Your task to perform on an android device: When is my next appointment? Image 0: 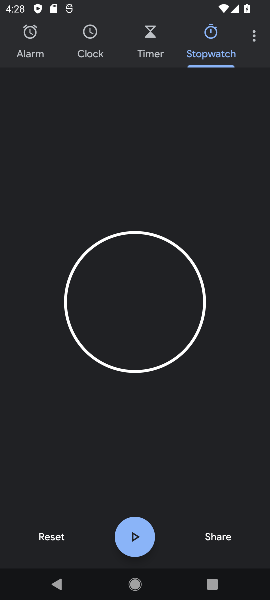
Step 0: press back button
Your task to perform on an android device: When is my next appointment? Image 1: 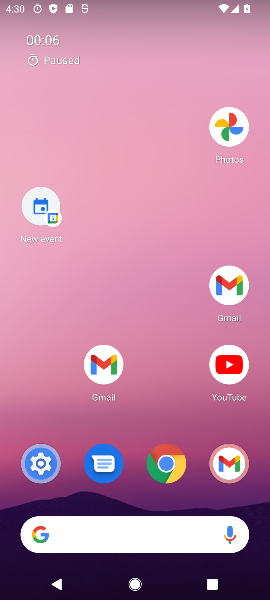
Step 1: drag from (128, 467) to (92, 111)
Your task to perform on an android device: When is my next appointment? Image 2: 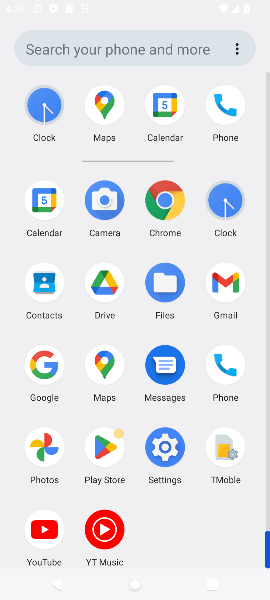
Step 2: drag from (156, 508) to (155, 130)
Your task to perform on an android device: When is my next appointment? Image 3: 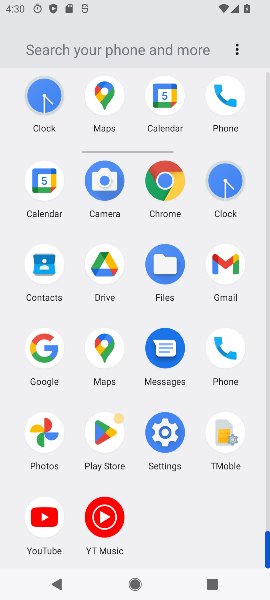
Step 3: drag from (145, 333) to (154, 134)
Your task to perform on an android device: When is my next appointment? Image 4: 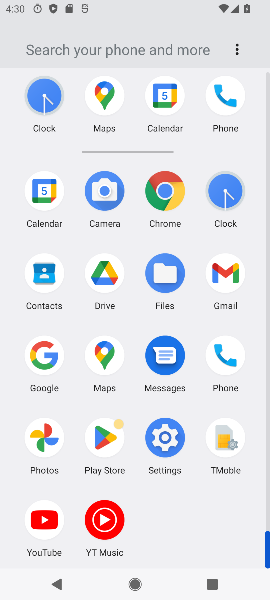
Step 4: click (159, 100)
Your task to perform on an android device: When is my next appointment? Image 5: 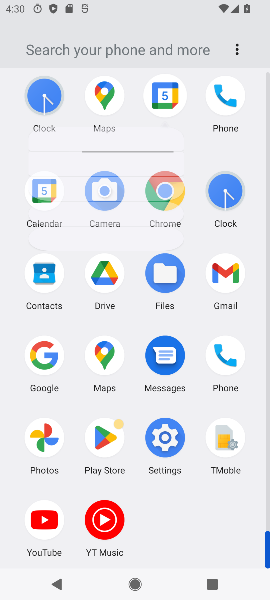
Step 5: click (159, 100)
Your task to perform on an android device: When is my next appointment? Image 6: 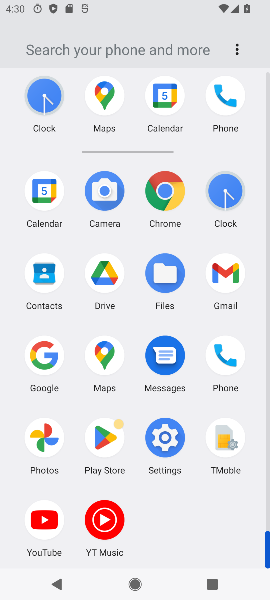
Step 6: click (159, 100)
Your task to perform on an android device: When is my next appointment? Image 7: 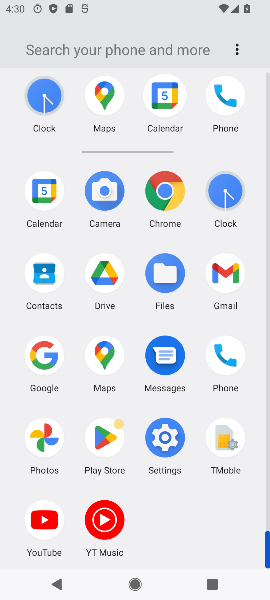
Step 7: click (159, 100)
Your task to perform on an android device: When is my next appointment? Image 8: 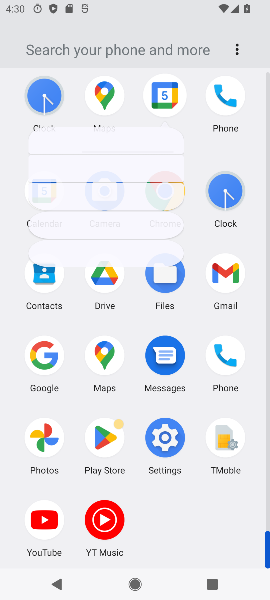
Step 8: click (159, 100)
Your task to perform on an android device: When is my next appointment? Image 9: 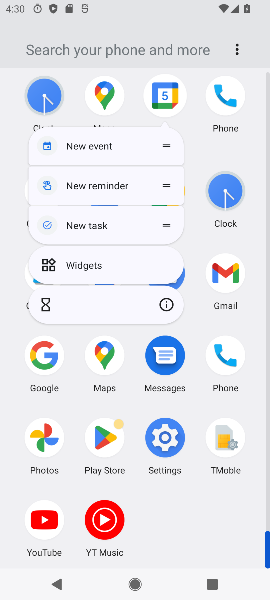
Step 9: click (164, 93)
Your task to perform on an android device: When is my next appointment? Image 10: 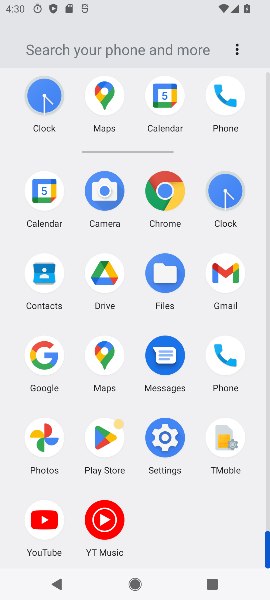
Step 10: click (165, 93)
Your task to perform on an android device: When is my next appointment? Image 11: 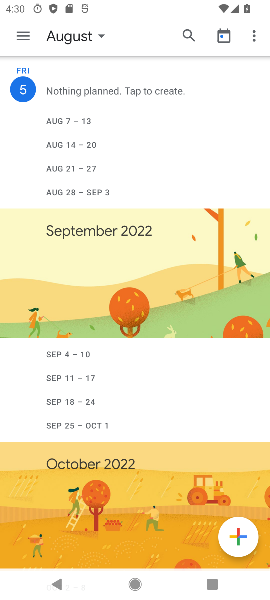
Step 11: click (102, 38)
Your task to perform on an android device: When is my next appointment? Image 12: 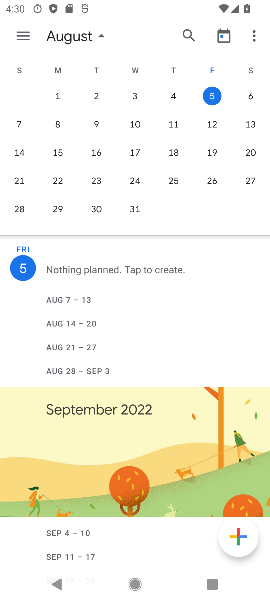
Step 12: task complete